Your task to perform on an android device: toggle priority inbox in the gmail app Image 0: 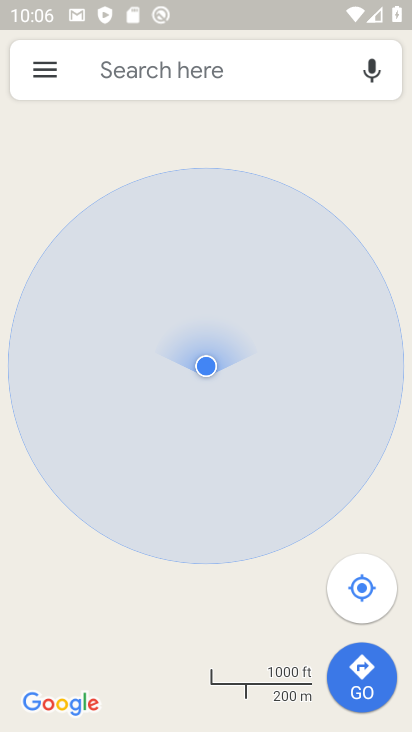
Step 0: press home button
Your task to perform on an android device: toggle priority inbox in the gmail app Image 1: 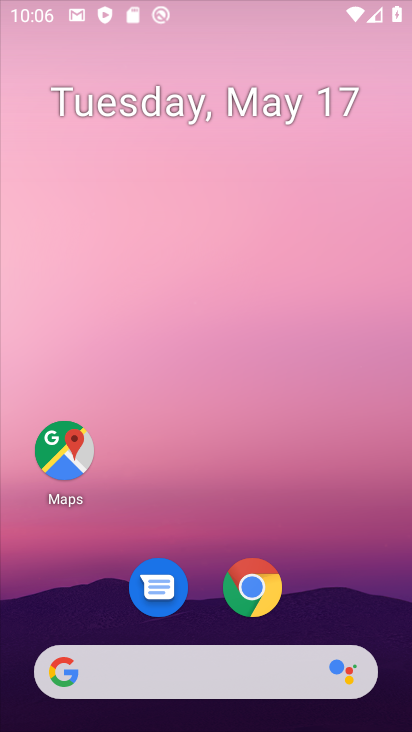
Step 1: drag from (386, 648) to (271, 57)
Your task to perform on an android device: toggle priority inbox in the gmail app Image 2: 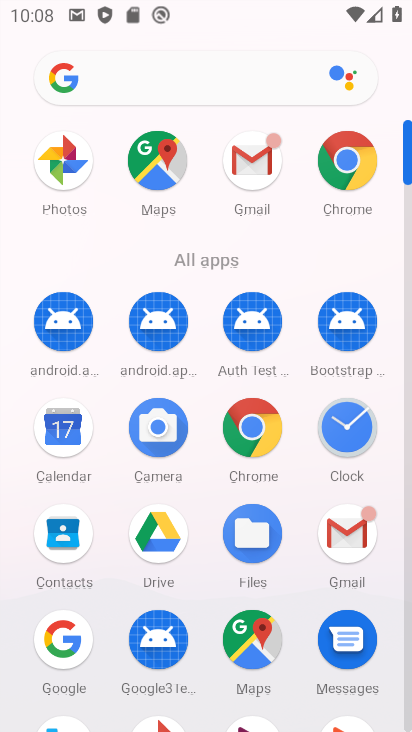
Step 2: click (364, 524)
Your task to perform on an android device: toggle priority inbox in the gmail app Image 3: 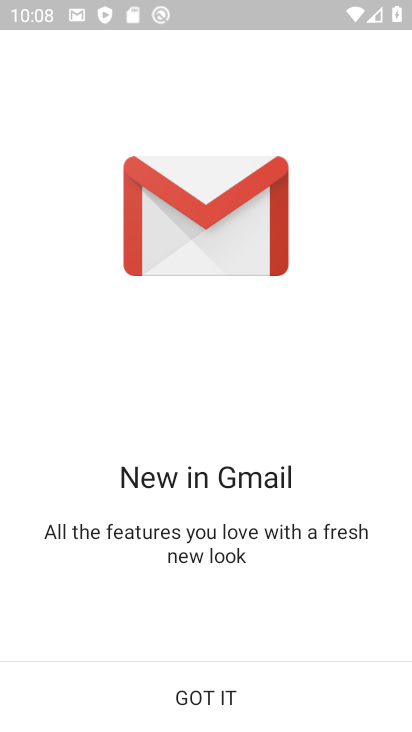
Step 3: click (256, 701)
Your task to perform on an android device: toggle priority inbox in the gmail app Image 4: 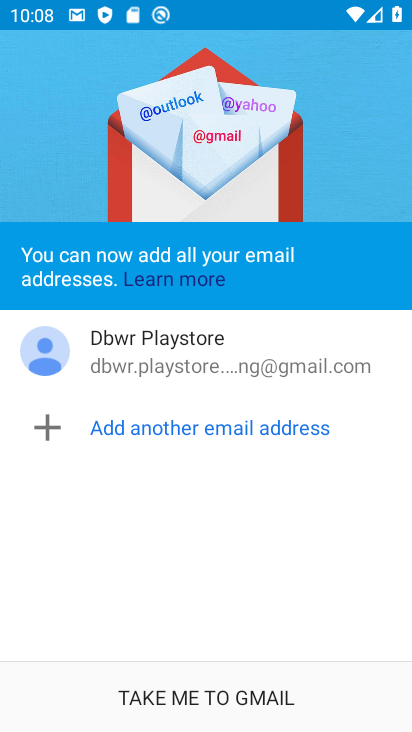
Step 4: click (255, 702)
Your task to perform on an android device: toggle priority inbox in the gmail app Image 5: 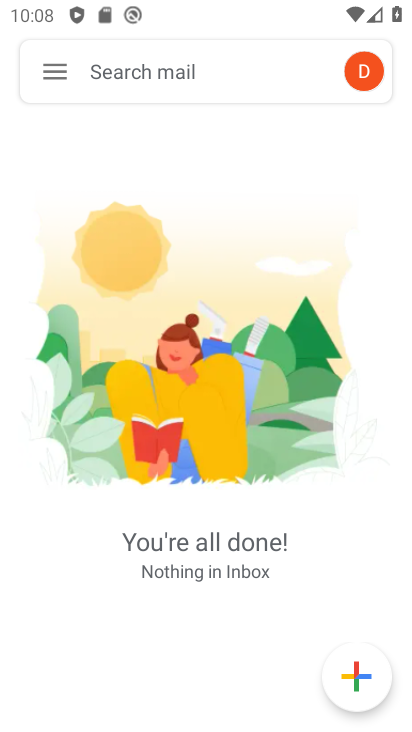
Step 5: click (66, 55)
Your task to perform on an android device: toggle priority inbox in the gmail app Image 6: 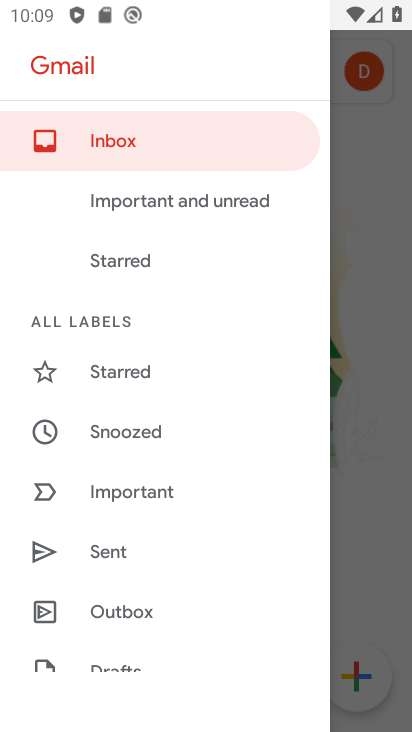
Step 6: drag from (133, 613) to (178, 31)
Your task to perform on an android device: toggle priority inbox in the gmail app Image 7: 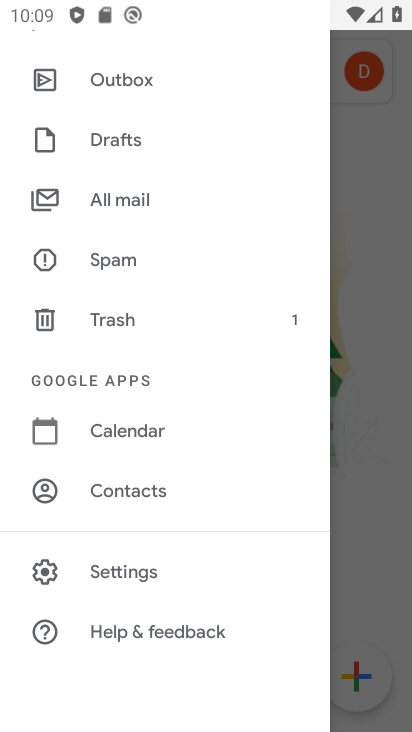
Step 7: click (153, 573)
Your task to perform on an android device: toggle priority inbox in the gmail app Image 8: 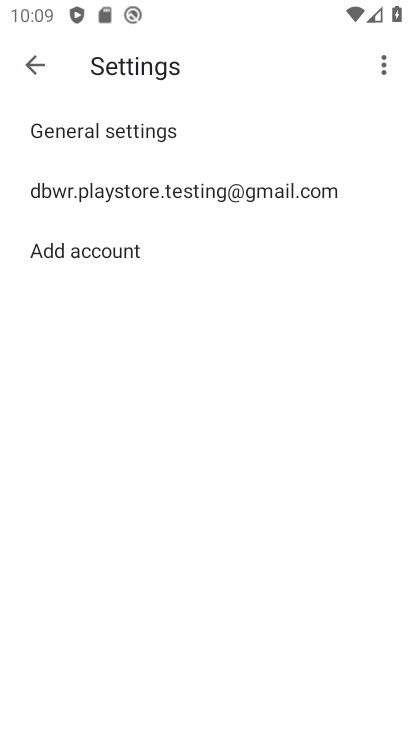
Step 8: click (103, 191)
Your task to perform on an android device: toggle priority inbox in the gmail app Image 9: 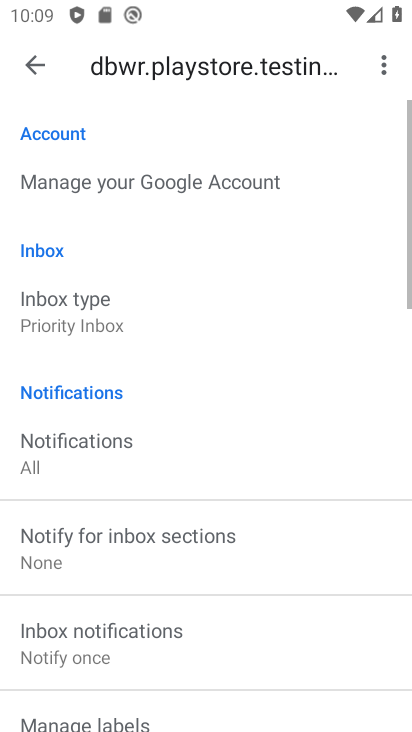
Step 9: click (107, 331)
Your task to perform on an android device: toggle priority inbox in the gmail app Image 10: 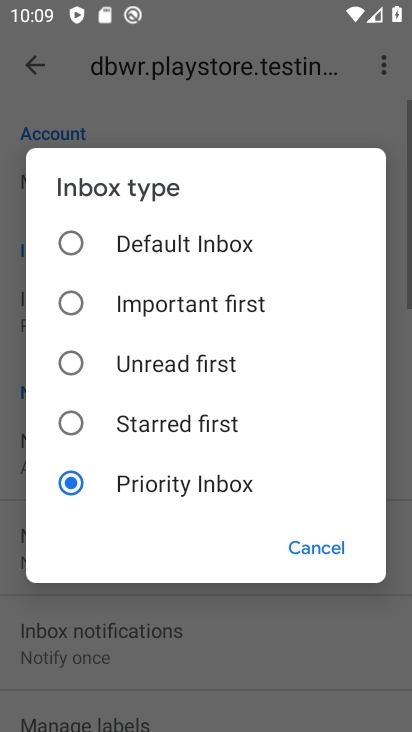
Step 10: click (134, 251)
Your task to perform on an android device: toggle priority inbox in the gmail app Image 11: 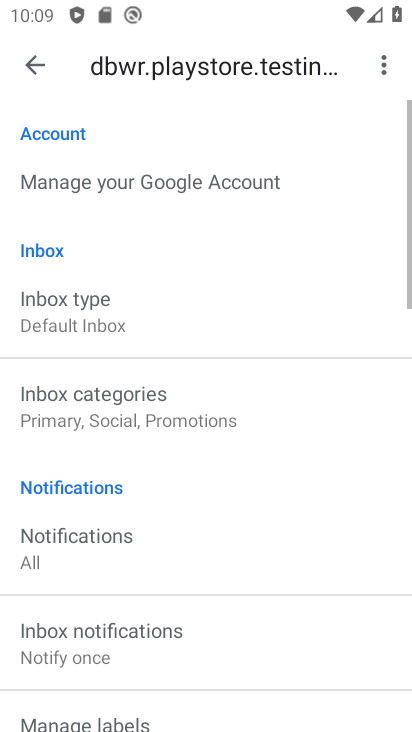
Step 11: task complete